Your task to perform on an android device: Search for Mexican restaurants on Maps Image 0: 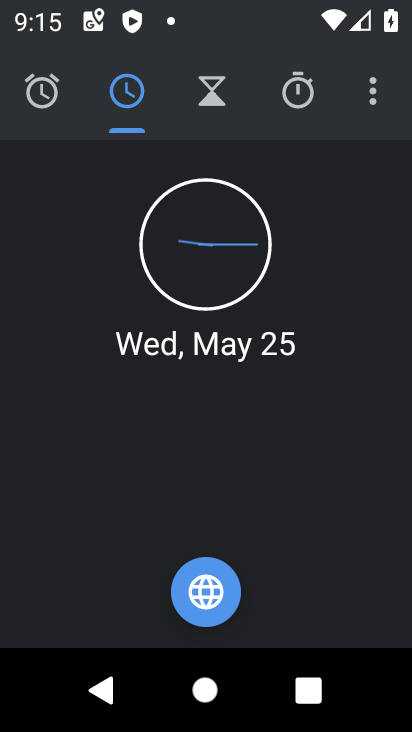
Step 0: press home button
Your task to perform on an android device: Search for Mexican restaurants on Maps Image 1: 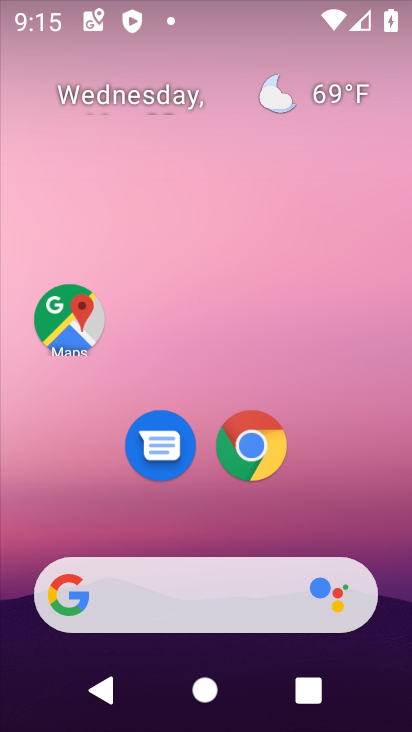
Step 1: click (79, 324)
Your task to perform on an android device: Search for Mexican restaurants on Maps Image 2: 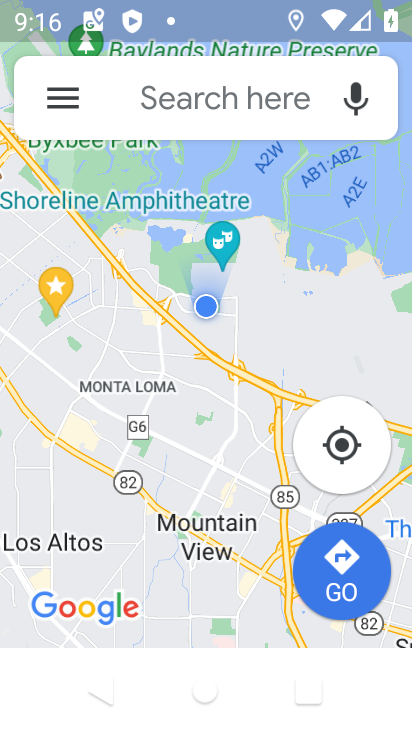
Step 2: click (184, 84)
Your task to perform on an android device: Search for Mexican restaurants on Maps Image 3: 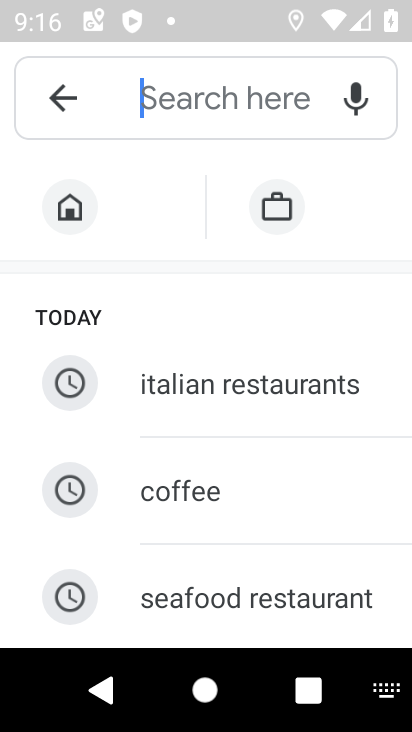
Step 3: type " Mexican restaurants"
Your task to perform on an android device: Search for Mexican restaurants on Maps Image 4: 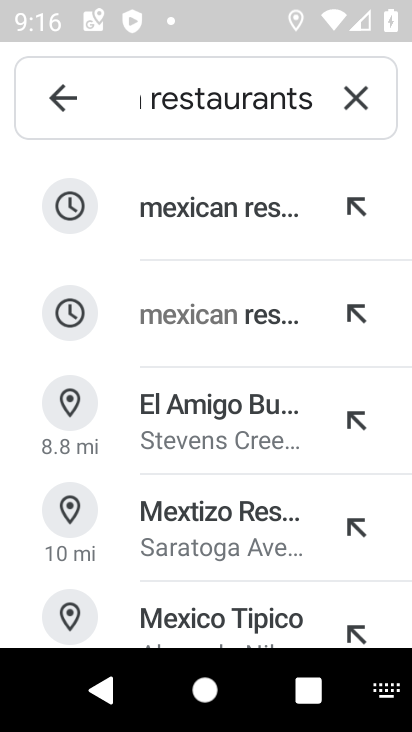
Step 4: click (165, 214)
Your task to perform on an android device: Search for Mexican restaurants on Maps Image 5: 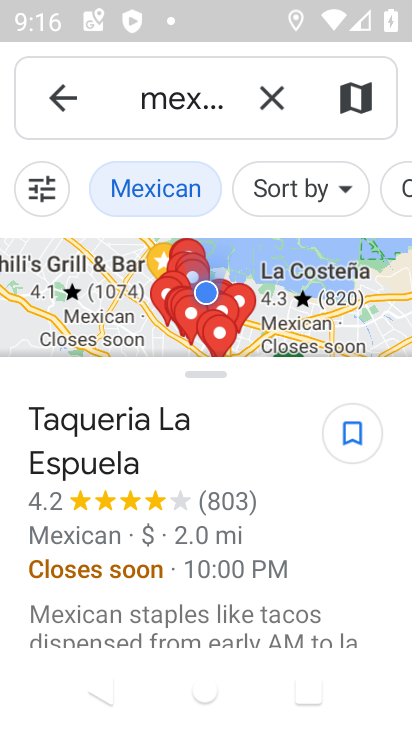
Step 5: task complete